Your task to perform on an android device: Search for acer nitro on amazon.com, select the first entry, add it to the cart, then select checkout. Image 0: 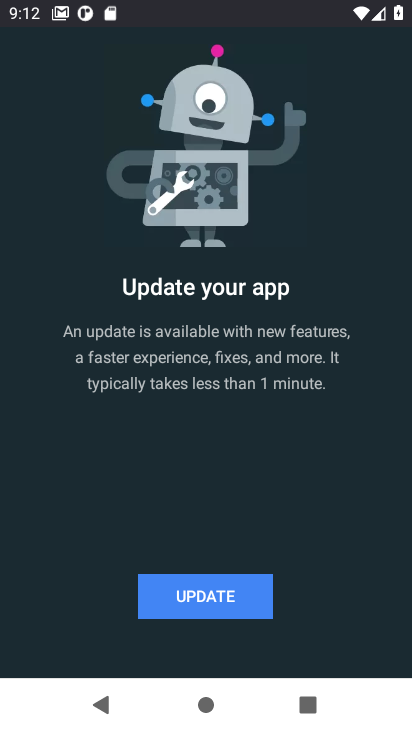
Step 0: press home button
Your task to perform on an android device: Search for acer nitro on amazon.com, select the first entry, add it to the cart, then select checkout. Image 1: 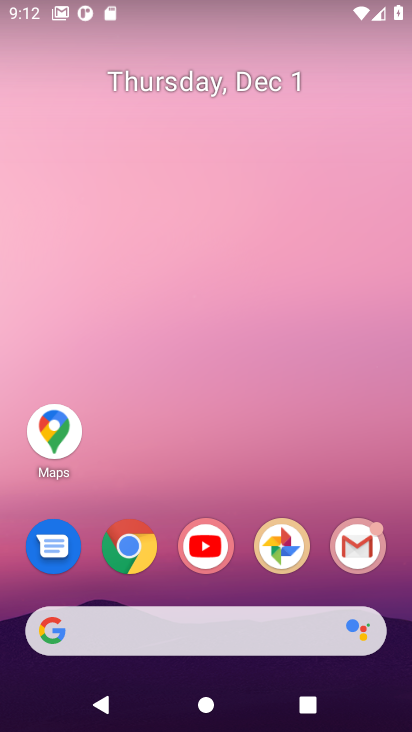
Step 1: click (132, 550)
Your task to perform on an android device: Search for acer nitro on amazon.com, select the first entry, add it to the cart, then select checkout. Image 2: 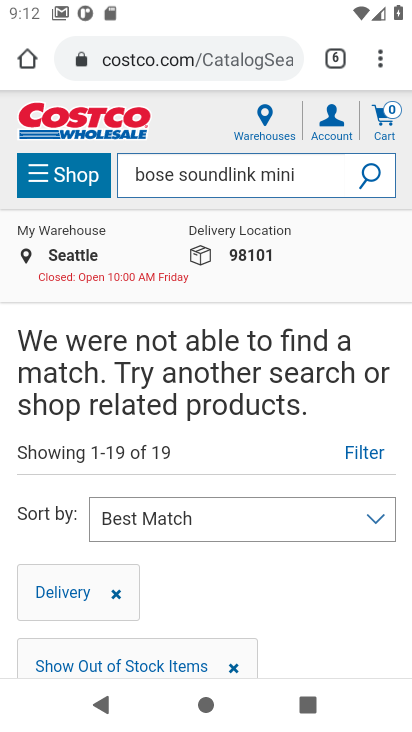
Step 2: click (185, 65)
Your task to perform on an android device: Search for acer nitro on amazon.com, select the first entry, add it to the cart, then select checkout. Image 3: 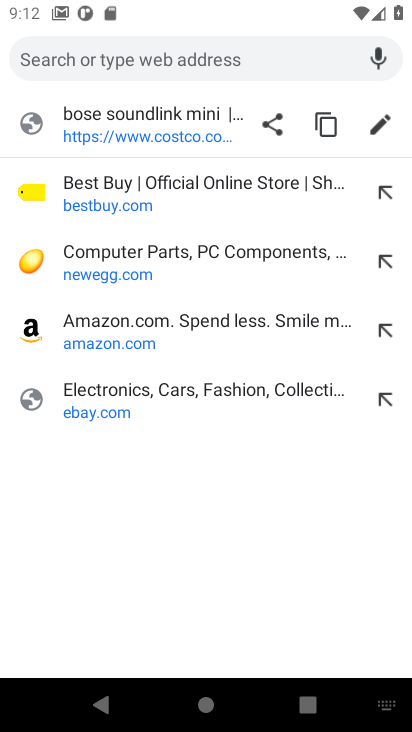
Step 3: click (105, 329)
Your task to perform on an android device: Search for acer nitro on amazon.com, select the first entry, add it to the cart, then select checkout. Image 4: 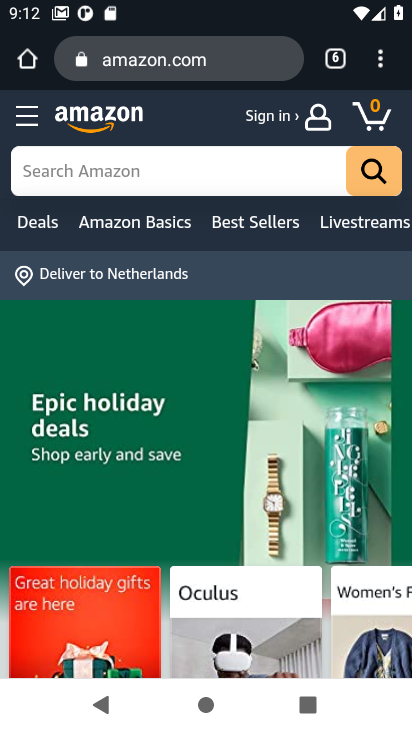
Step 4: click (123, 162)
Your task to perform on an android device: Search for acer nitro on amazon.com, select the first entry, add it to the cart, then select checkout. Image 5: 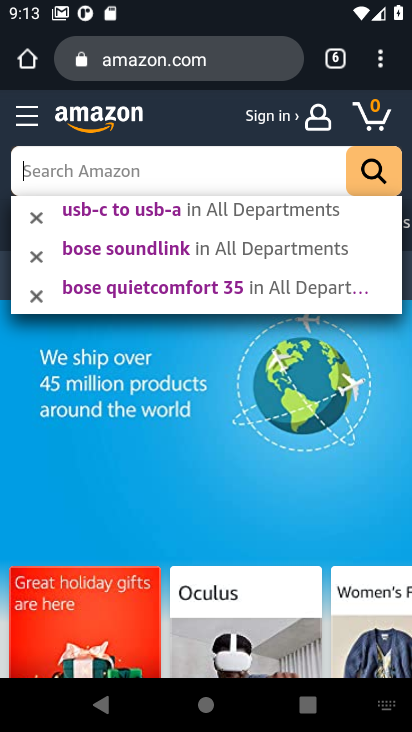
Step 5: type "acer nitro"
Your task to perform on an android device: Search for acer nitro on amazon.com, select the first entry, add it to the cart, then select checkout. Image 6: 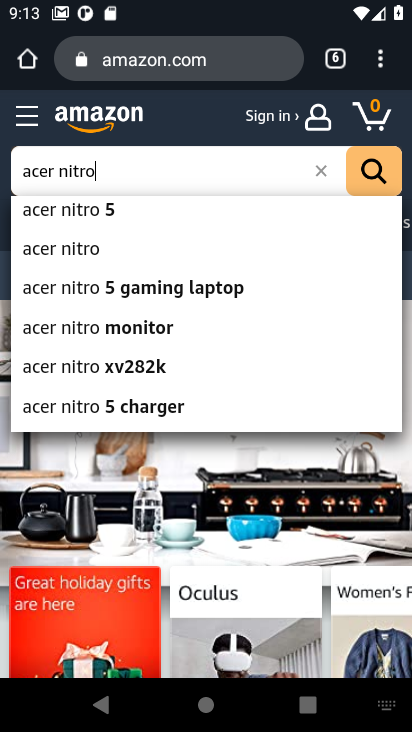
Step 6: click (77, 255)
Your task to perform on an android device: Search for acer nitro on amazon.com, select the first entry, add it to the cart, then select checkout. Image 7: 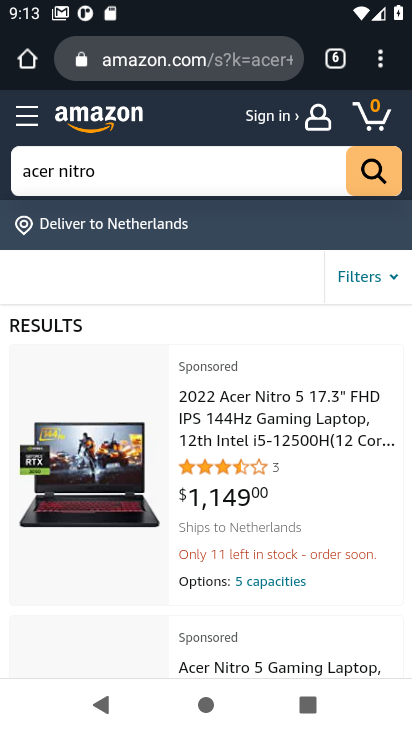
Step 7: click (266, 433)
Your task to perform on an android device: Search for acer nitro on amazon.com, select the first entry, add it to the cart, then select checkout. Image 8: 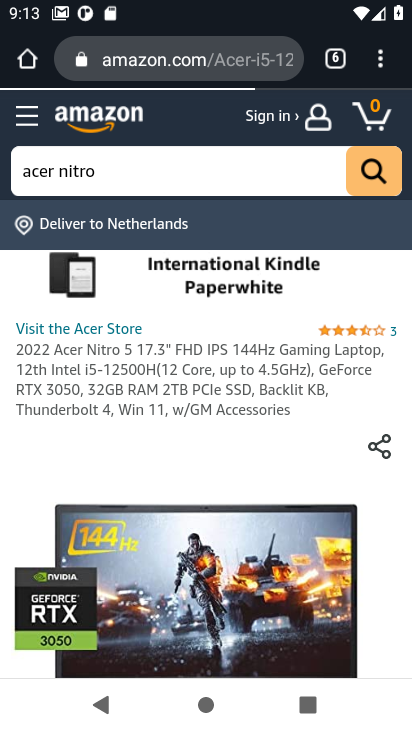
Step 8: drag from (153, 530) to (153, 307)
Your task to perform on an android device: Search for acer nitro on amazon.com, select the first entry, add it to the cart, then select checkout. Image 9: 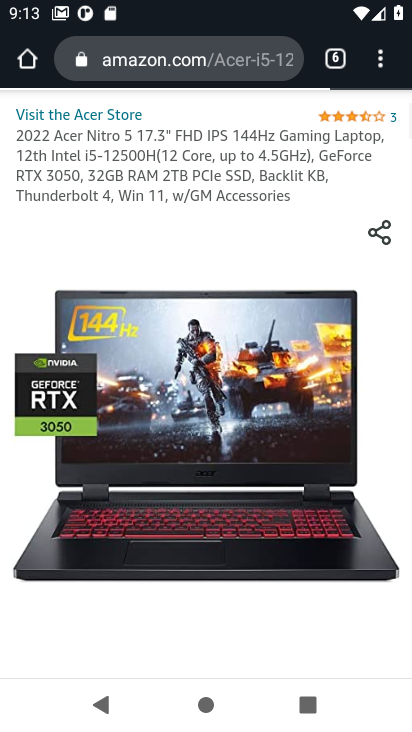
Step 9: drag from (159, 556) to (161, 283)
Your task to perform on an android device: Search for acer nitro on amazon.com, select the first entry, add it to the cart, then select checkout. Image 10: 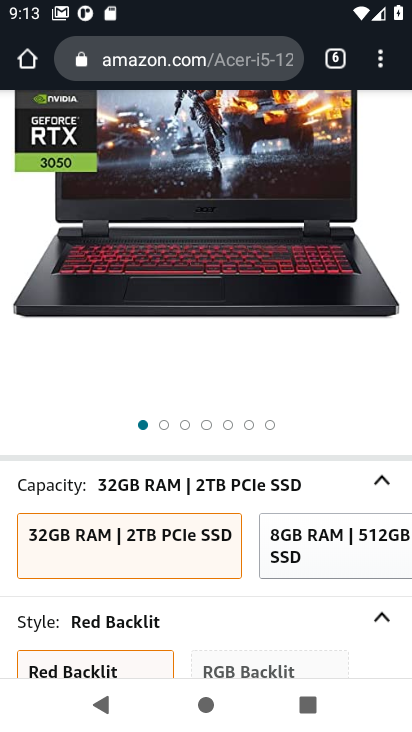
Step 10: drag from (163, 423) to (164, 232)
Your task to perform on an android device: Search for acer nitro on amazon.com, select the first entry, add it to the cart, then select checkout. Image 11: 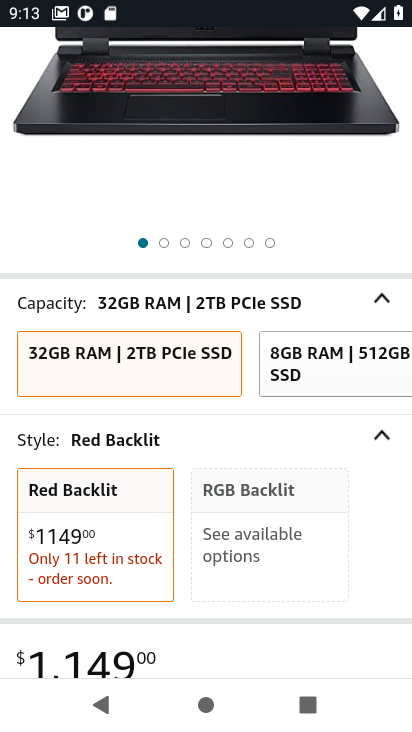
Step 11: drag from (185, 458) to (184, 242)
Your task to perform on an android device: Search for acer nitro on amazon.com, select the first entry, add it to the cart, then select checkout. Image 12: 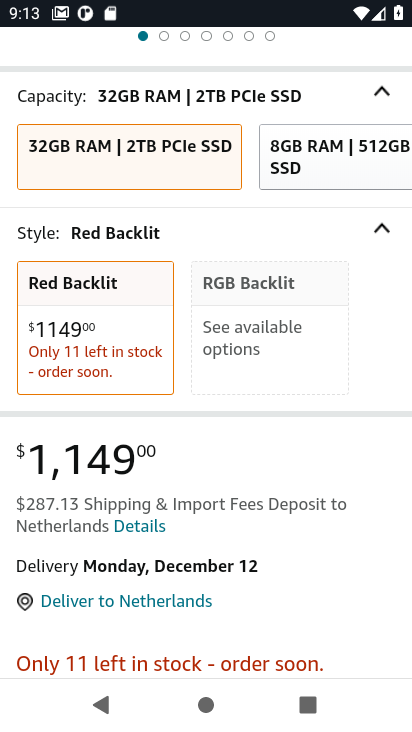
Step 12: drag from (188, 499) to (177, 225)
Your task to perform on an android device: Search for acer nitro on amazon.com, select the first entry, add it to the cart, then select checkout. Image 13: 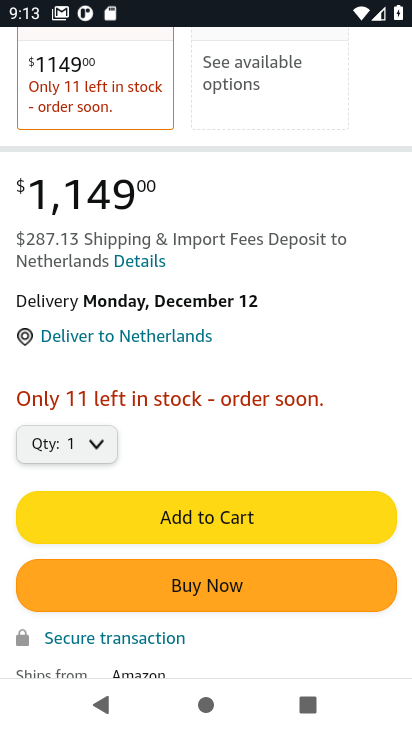
Step 13: click (185, 517)
Your task to perform on an android device: Search for acer nitro on amazon.com, select the first entry, add it to the cart, then select checkout. Image 14: 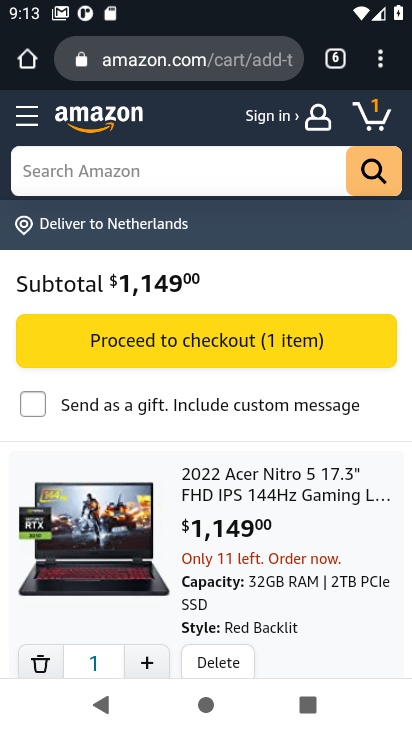
Step 14: click (175, 332)
Your task to perform on an android device: Search for acer nitro on amazon.com, select the first entry, add it to the cart, then select checkout. Image 15: 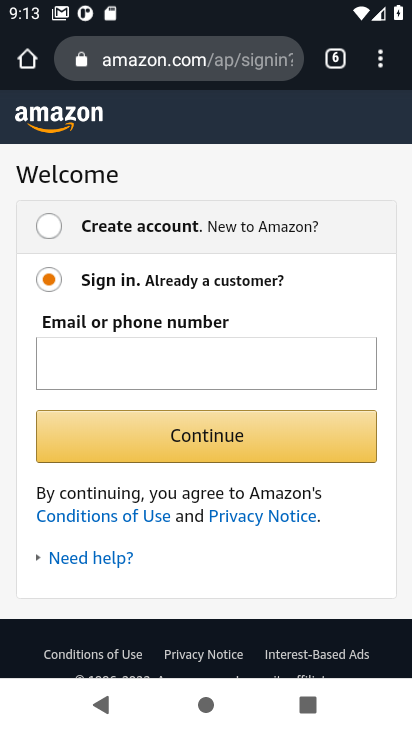
Step 15: task complete